Your task to perform on an android device: toggle location history Image 0: 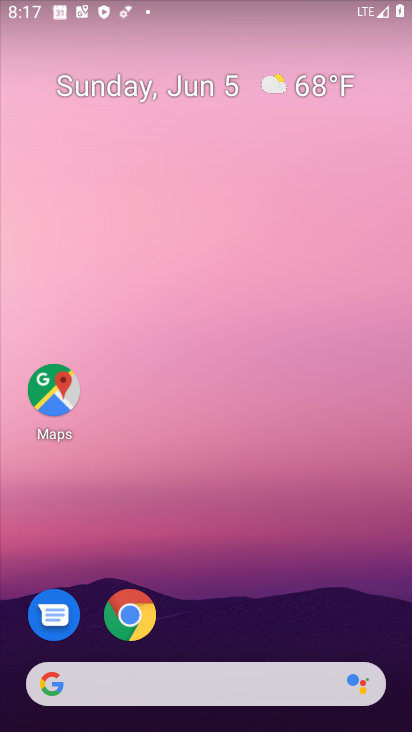
Step 0: drag from (175, 676) to (186, 495)
Your task to perform on an android device: toggle location history Image 1: 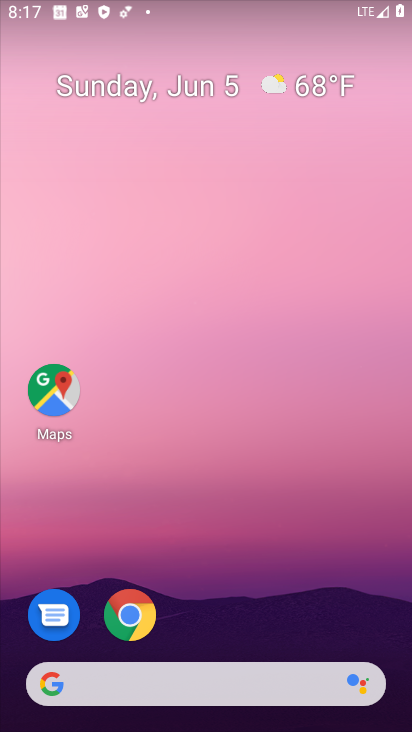
Step 1: click (217, 552)
Your task to perform on an android device: toggle location history Image 2: 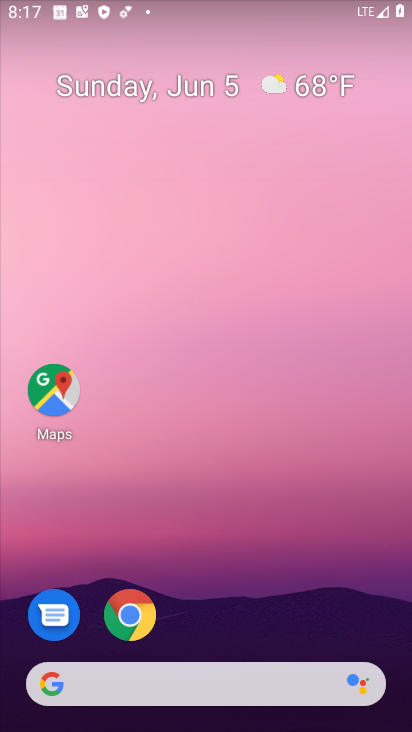
Step 2: drag from (217, 660) to (194, 287)
Your task to perform on an android device: toggle location history Image 3: 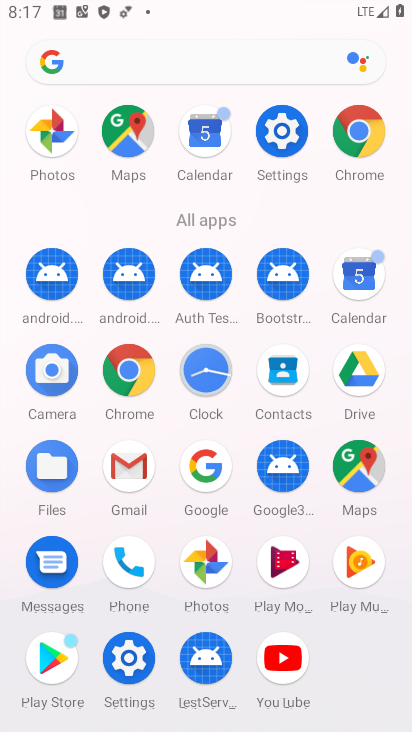
Step 3: click (278, 165)
Your task to perform on an android device: toggle location history Image 4: 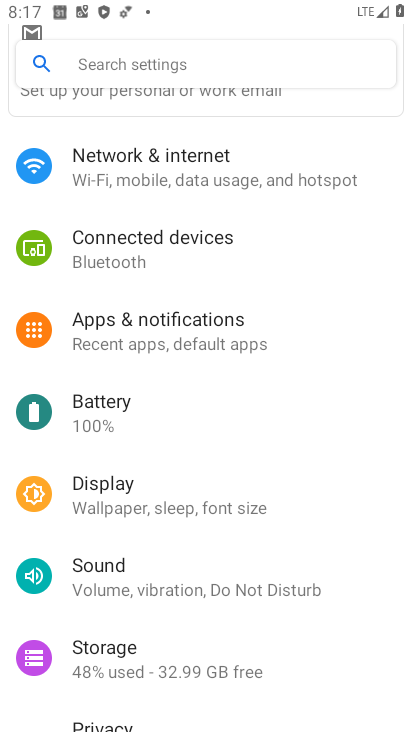
Step 4: drag from (138, 552) to (138, 429)
Your task to perform on an android device: toggle location history Image 5: 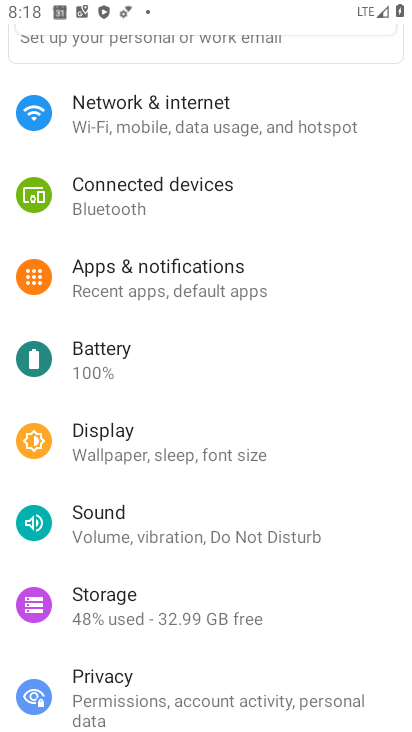
Step 5: drag from (140, 564) to (150, 472)
Your task to perform on an android device: toggle location history Image 6: 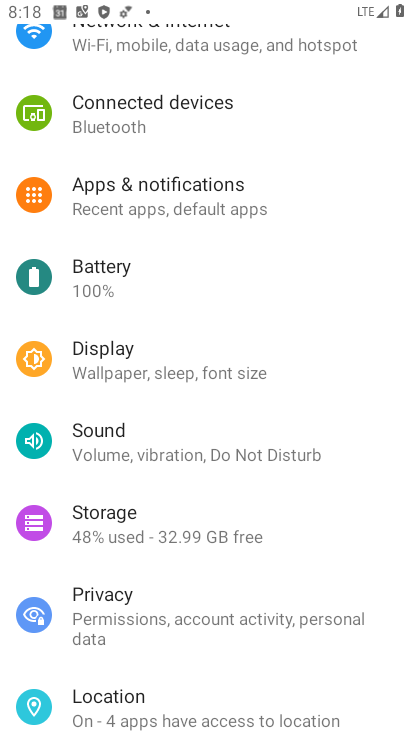
Step 6: click (146, 689)
Your task to perform on an android device: toggle location history Image 7: 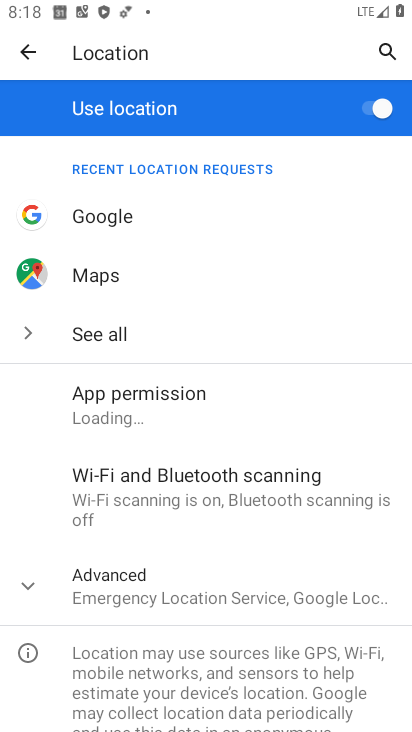
Step 7: click (221, 576)
Your task to perform on an android device: toggle location history Image 8: 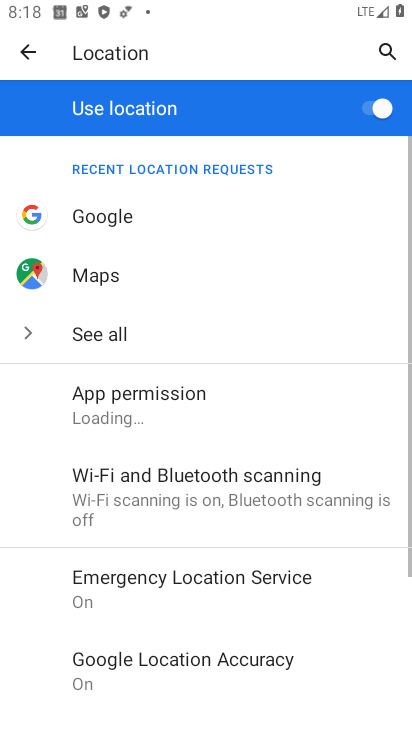
Step 8: drag from (221, 576) to (244, 350)
Your task to perform on an android device: toggle location history Image 9: 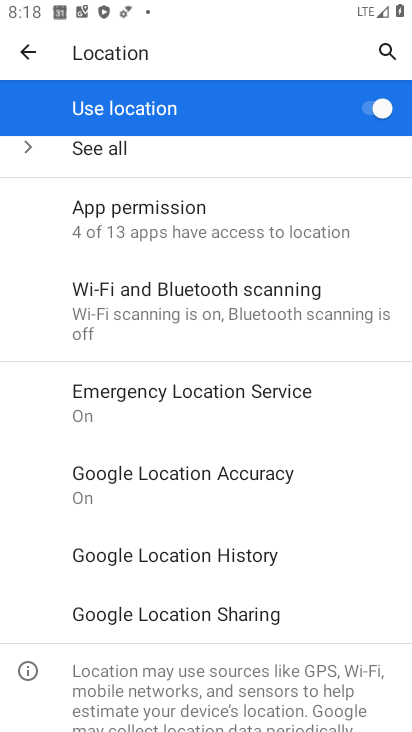
Step 9: click (229, 569)
Your task to perform on an android device: toggle location history Image 10: 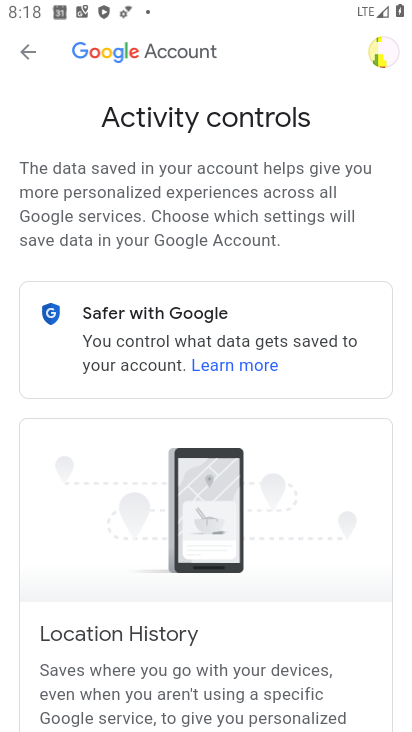
Step 10: drag from (277, 620) to (119, 186)
Your task to perform on an android device: toggle location history Image 11: 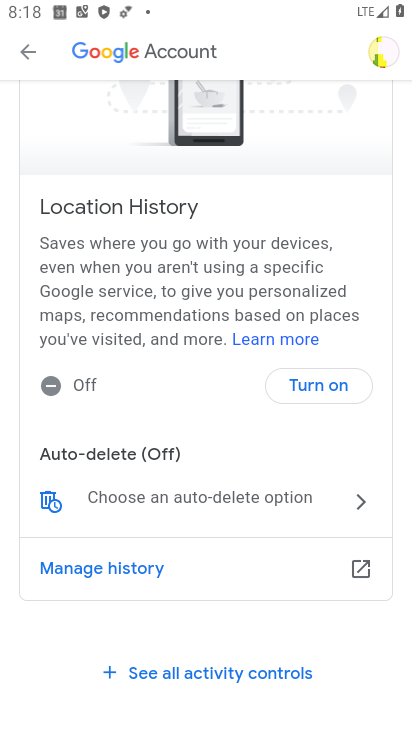
Step 11: click (347, 392)
Your task to perform on an android device: toggle location history Image 12: 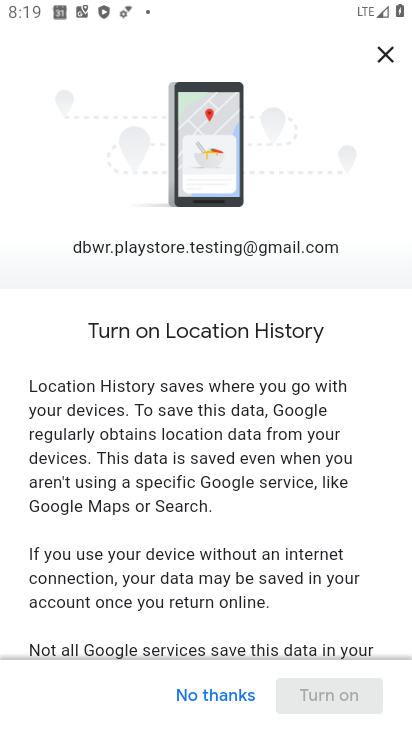
Step 12: drag from (276, 587) to (247, 148)
Your task to perform on an android device: toggle location history Image 13: 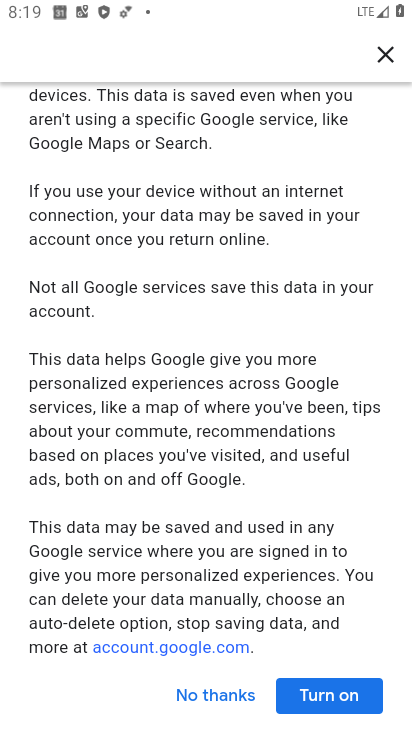
Step 13: click (311, 699)
Your task to perform on an android device: toggle location history Image 14: 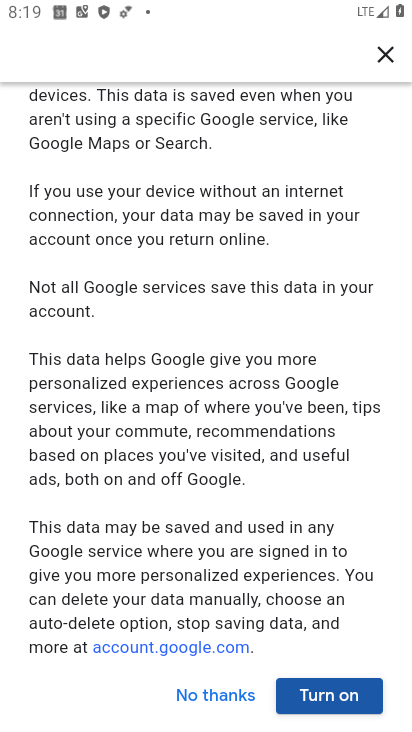
Step 14: click (311, 699)
Your task to perform on an android device: toggle location history Image 15: 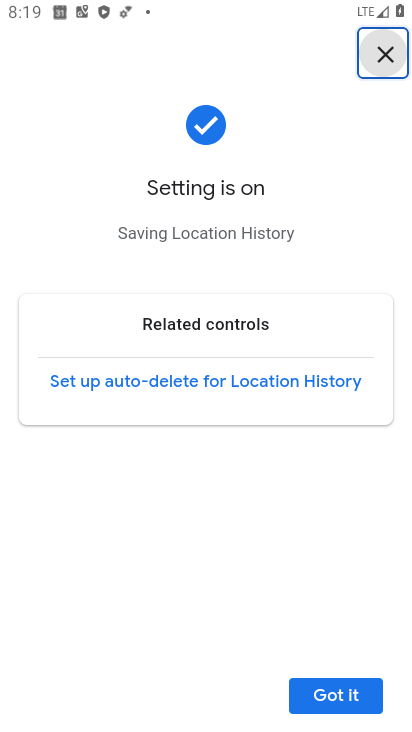
Step 15: click (321, 709)
Your task to perform on an android device: toggle location history Image 16: 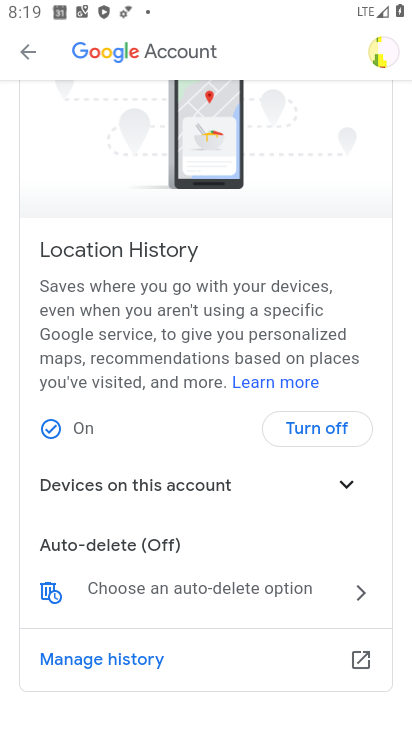
Step 16: task complete